Your task to perform on an android device: Go to Amazon Image 0: 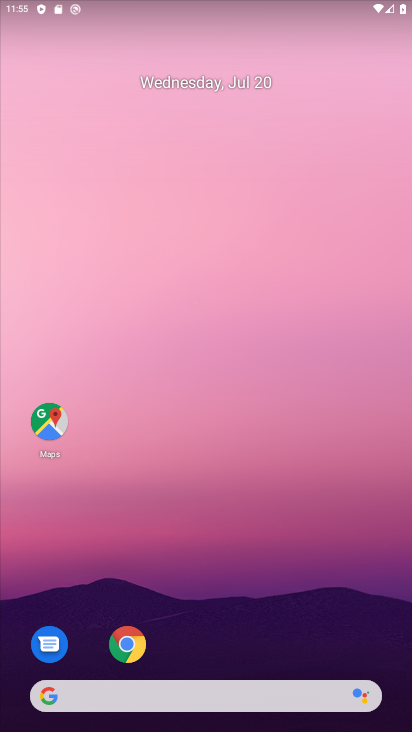
Step 0: click (126, 644)
Your task to perform on an android device: Go to Amazon Image 1: 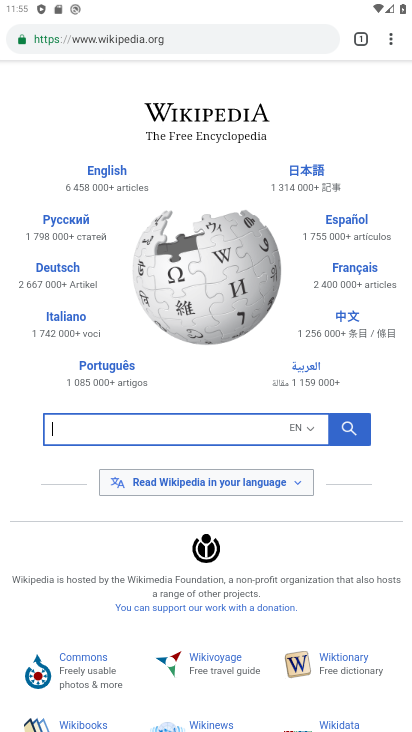
Step 1: click (189, 43)
Your task to perform on an android device: Go to Amazon Image 2: 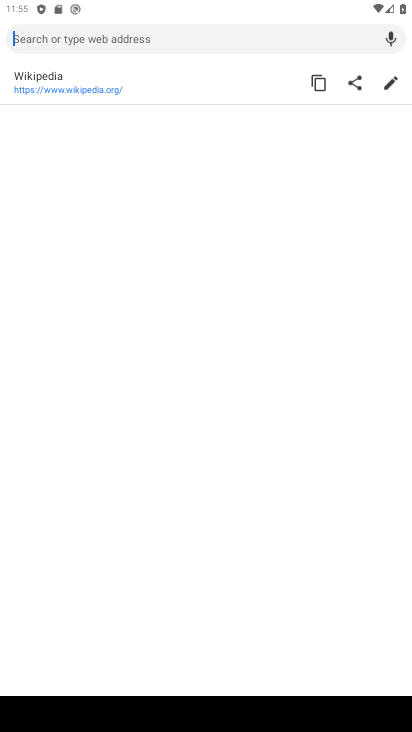
Step 2: type "Amazon"
Your task to perform on an android device: Go to Amazon Image 3: 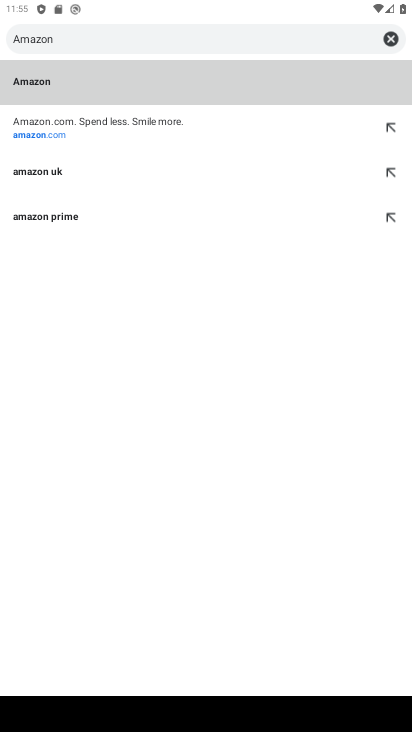
Step 3: click (37, 76)
Your task to perform on an android device: Go to Amazon Image 4: 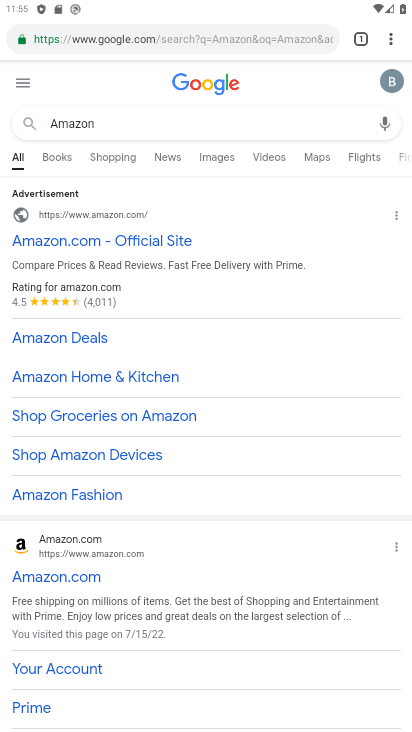
Step 4: click (74, 235)
Your task to perform on an android device: Go to Amazon Image 5: 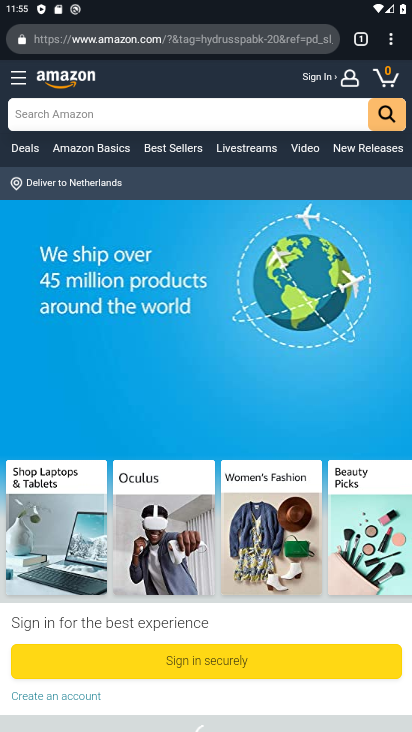
Step 5: task complete